Your task to perform on an android device: turn off improve location accuracy Image 0: 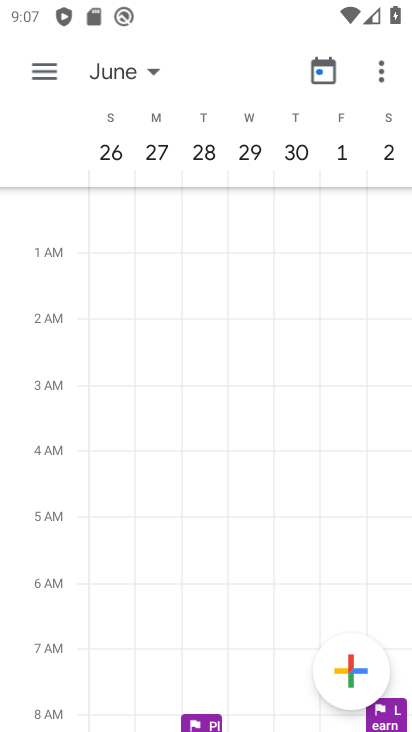
Step 0: press home button
Your task to perform on an android device: turn off improve location accuracy Image 1: 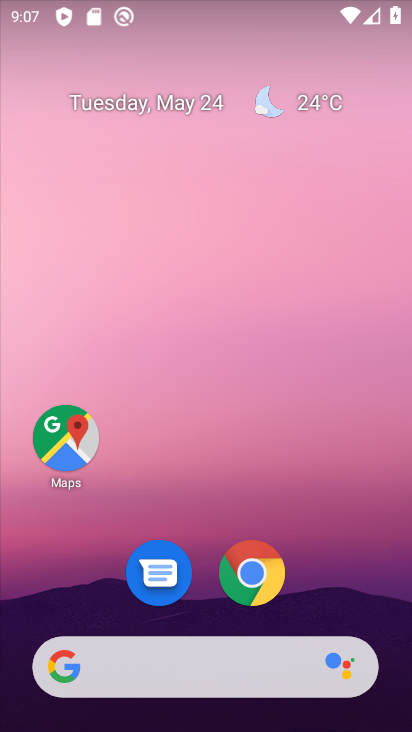
Step 1: drag from (373, 610) to (315, 28)
Your task to perform on an android device: turn off improve location accuracy Image 2: 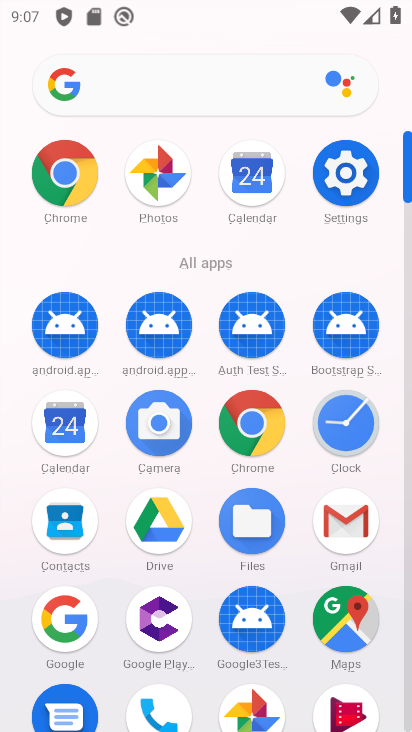
Step 2: click (407, 697)
Your task to perform on an android device: turn off improve location accuracy Image 3: 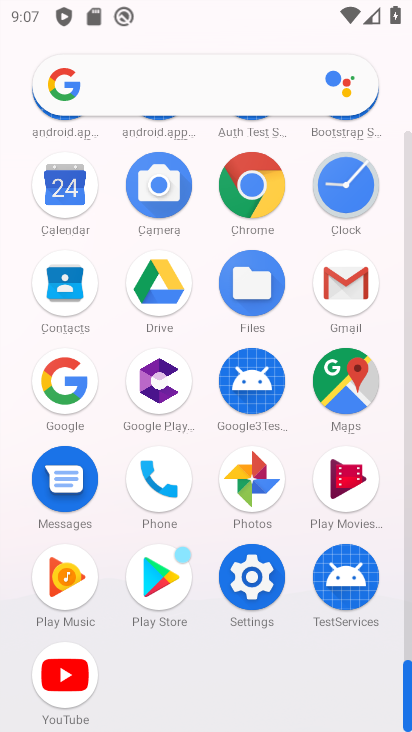
Step 3: click (246, 583)
Your task to perform on an android device: turn off improve location accuracy Image 4: 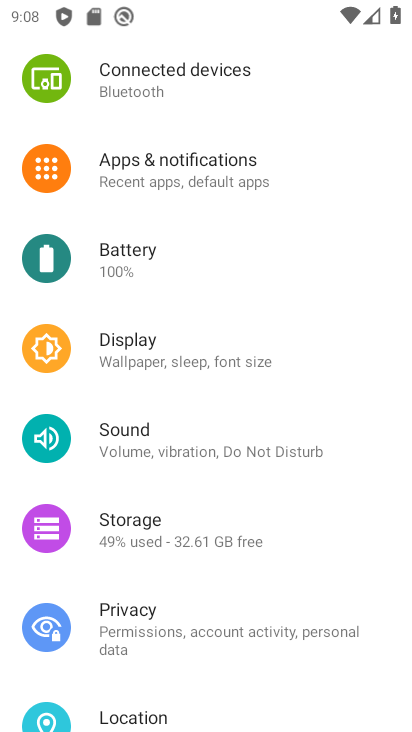
Step 4: drag from (181, 676) to (258, 198)
Your task to perform on an android device: turn off improve location accuracy Image 5: 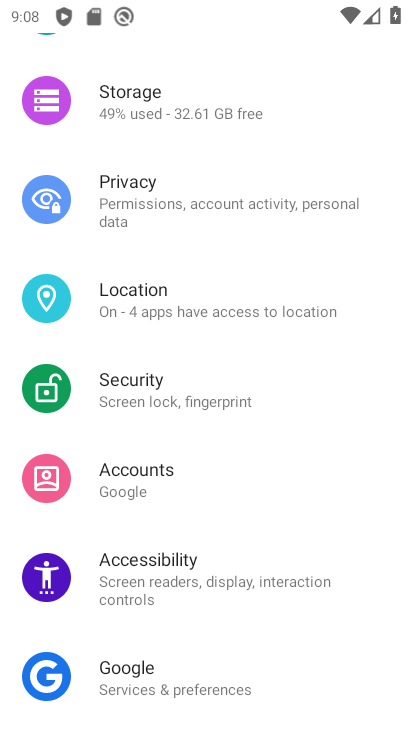
Step 5: click (145, 298)
Your task to perform on an android device: turn off improve location accuracy Image 6: 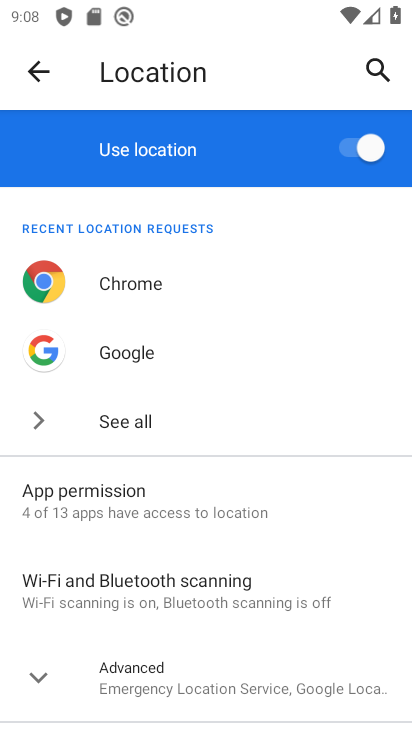
Step 6: click (21, 669)
Your task to perform on an android device: turn off improve location accuracy Image 7: 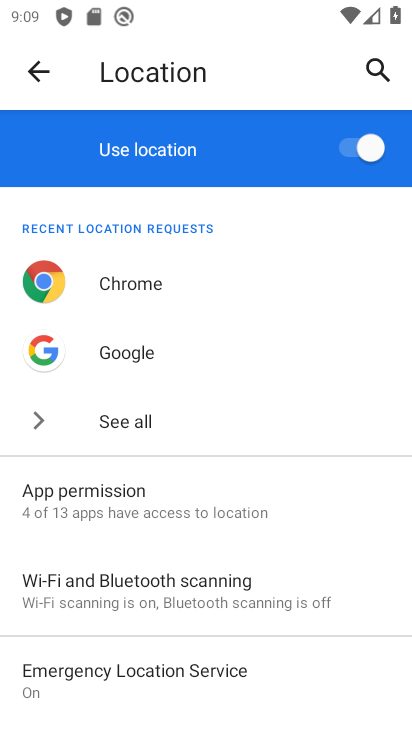
Step 7: drag from (202, 650) to (249, 154)
Your task to perform on an android device: turn off improve location accuracy Image 8: 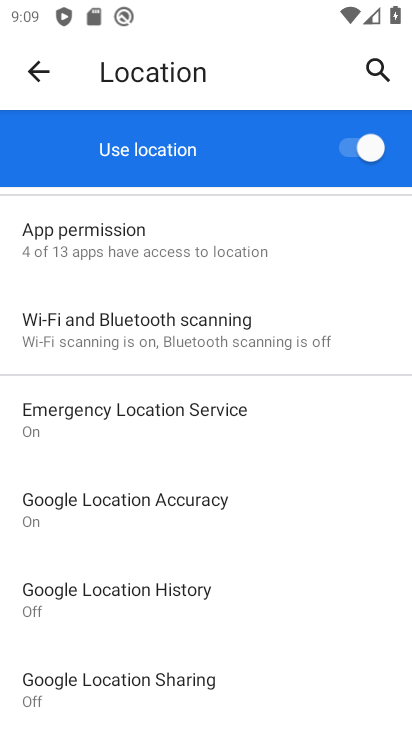
Step 8: click (93, 501)
Your task to perform on an android device: turn off improve location accuracy Image 9: 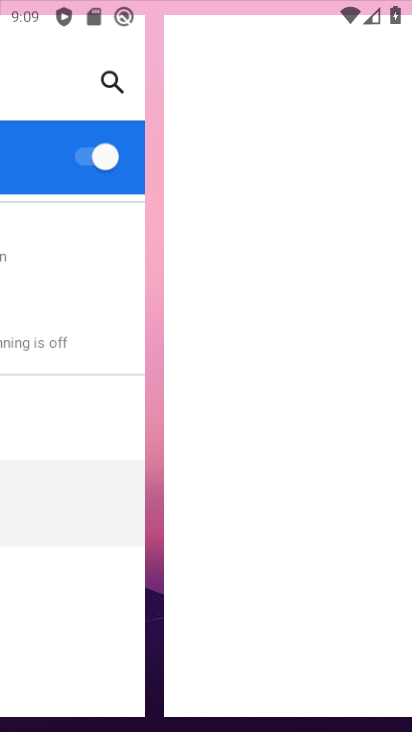
Step 9: click (93, 501)
Your task to perform on an android device: turn off improve location accuracy Image 10: 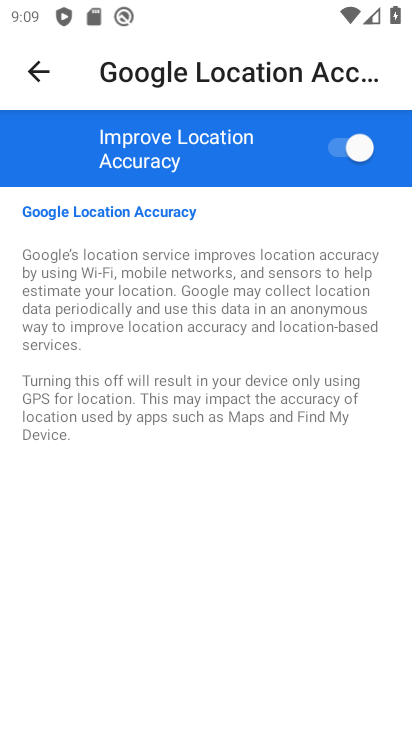
Step 10: click (339, 149)
Your task to perform on an android device: turn off improve location accuracy Image 11: 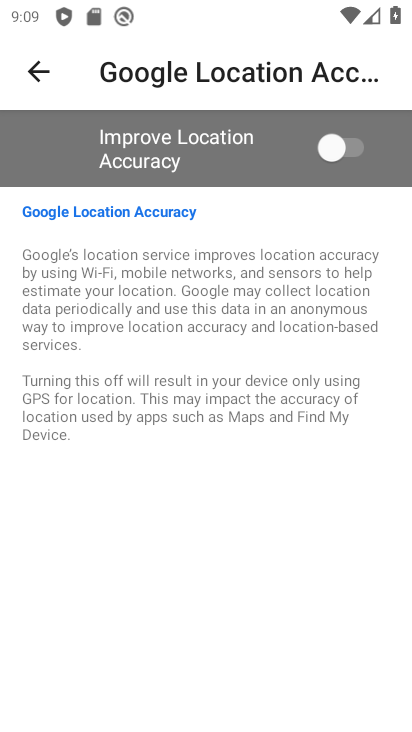
Step 11: task complete